Your task to perform on an android device: What is the news today? Image 0: 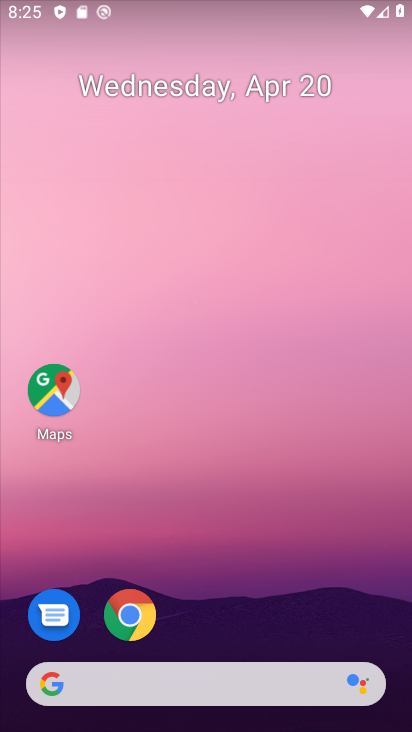
Step 0: click (129, 627)
Your task to perform on an android device: What is the news today? Image 1: 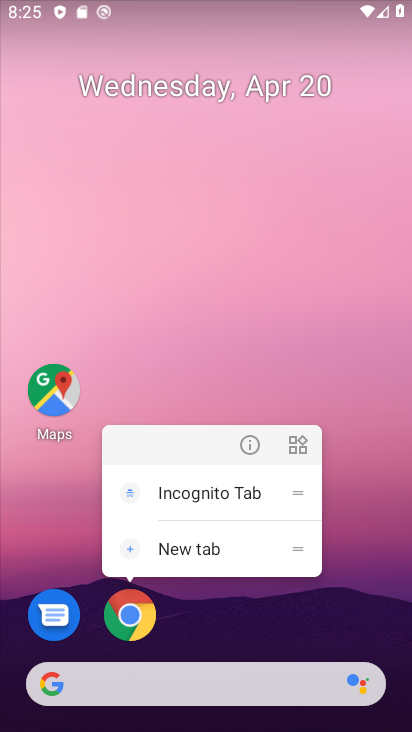
Step 1: click (252, 442)
Your task to perform on an android device: What is the news today? Image 2: 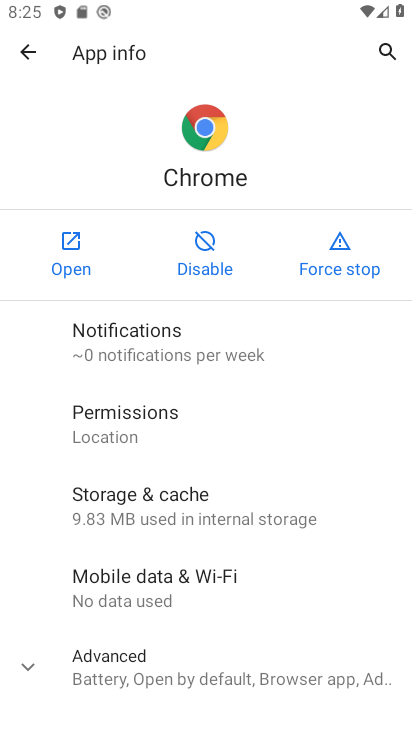
Step 2: click (68, 242)
Your task to perform on an android device: What is the news today? Image 3: 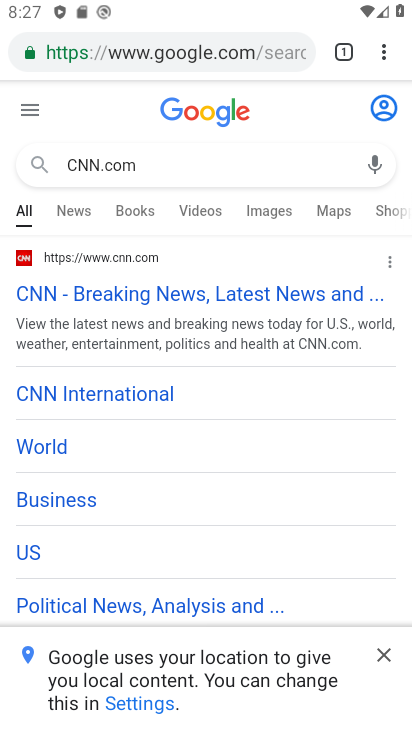
Step 3: click (179, 53)
Your task to perform on an android device: What is the news today? Image 4: 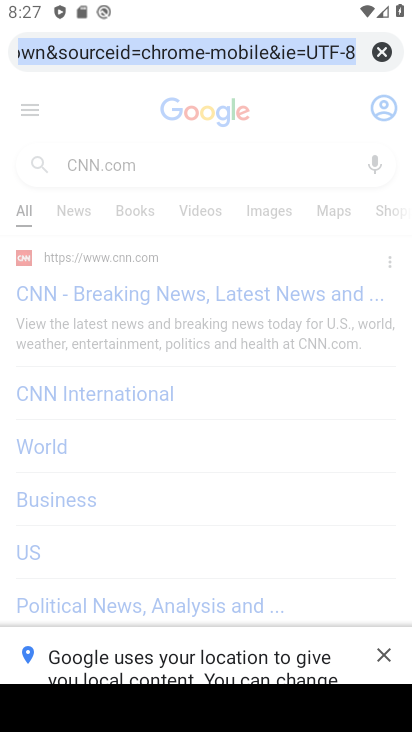
Step 4: type "news today"
Your task to perform on an android device: What is the news today? Image 5: 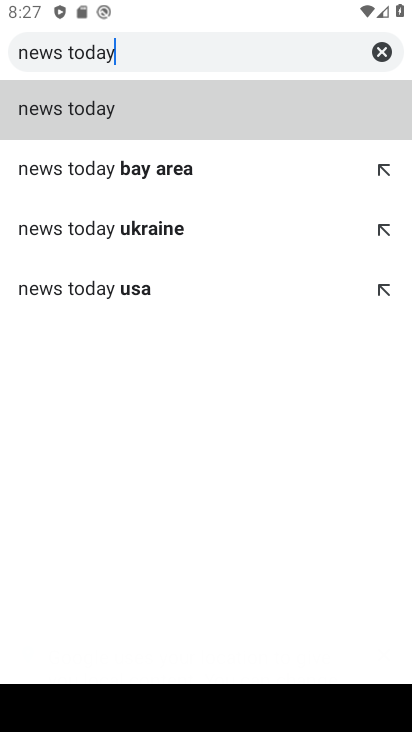
Step 5: click (100, 105)
Your task to perform on an android device: What is the news today? Image 6: 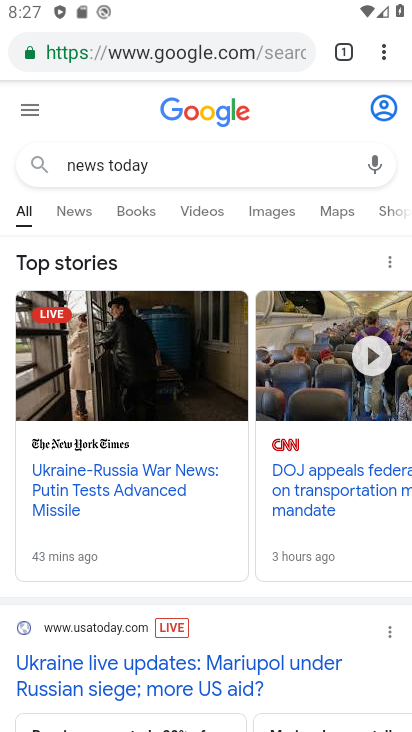
Step 6: task complete